Your task to perform on an android device: turn on priority inbox in the gmail app Image 0: 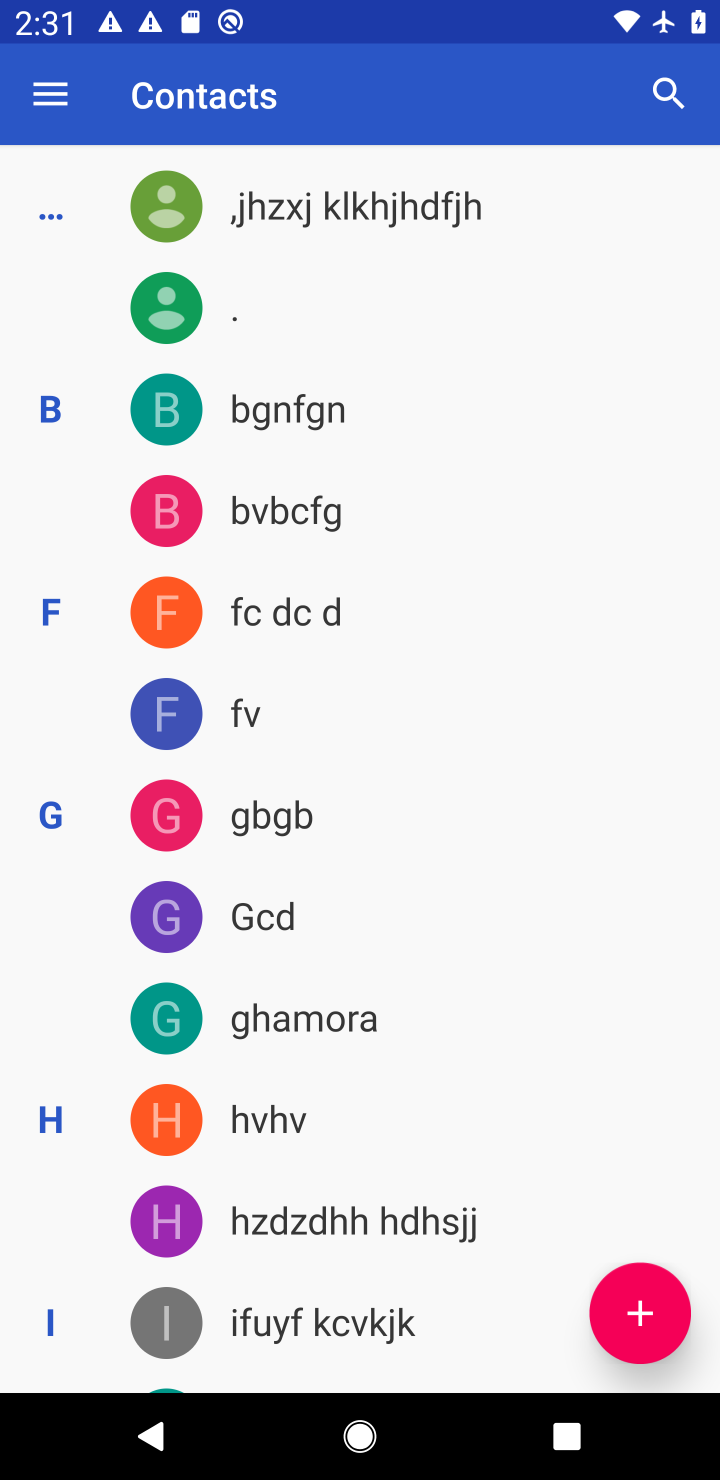
Step 0: task complete